Your task to perform on an android device: Do I have any events this weekend? Image 0: 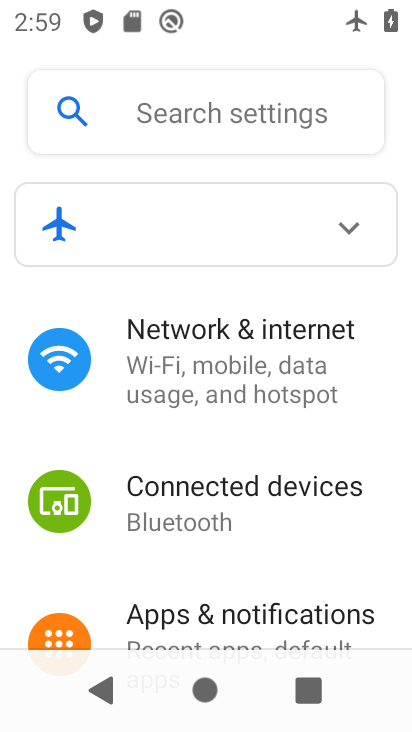
Step 0: press home button
Your task to perform on an android device: Do I have any events this weekend? Image 1: 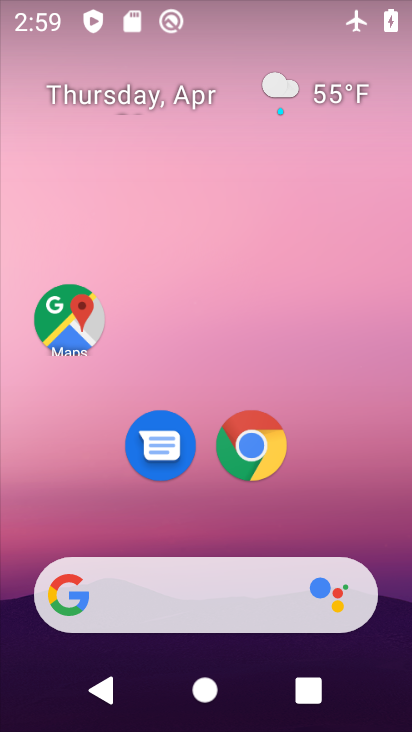
Step 1: drag from (321, 514) to (253, 5)
Your task to perform on an android device: Do I have any events this weekend? Image 2: 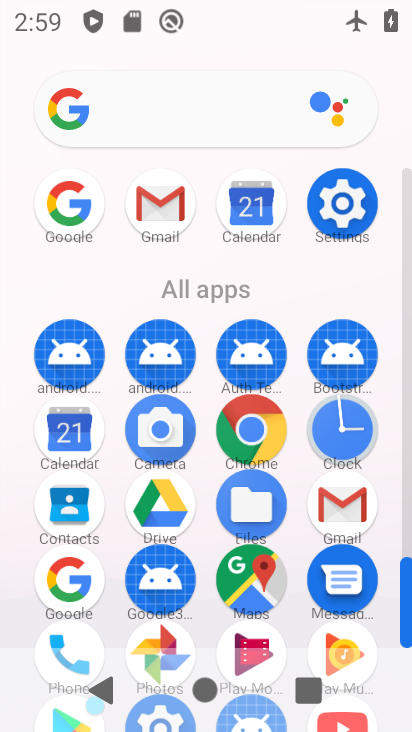
Step 2: click (76, 436)
Your task to perform on an android device: Do I have any events this weekend? Image 3: 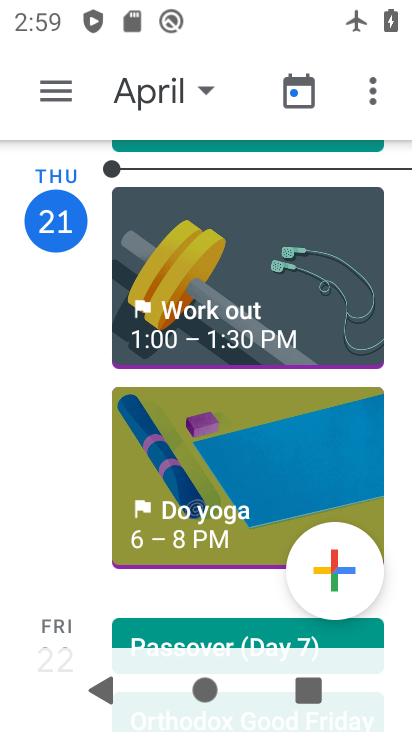
Step 3: click (210, 88)
Your task to perform on an android device: Do I have any events this weekend? Image 4: 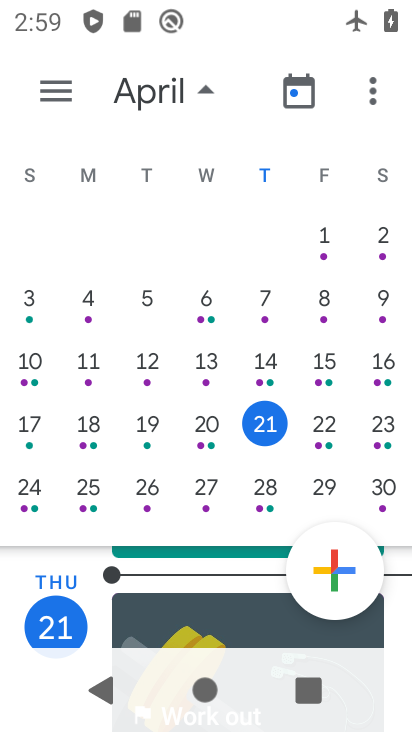
Step 4: click (382, 435)
Your task to perform on an android device: Do I have any events this weekend? Image 5: 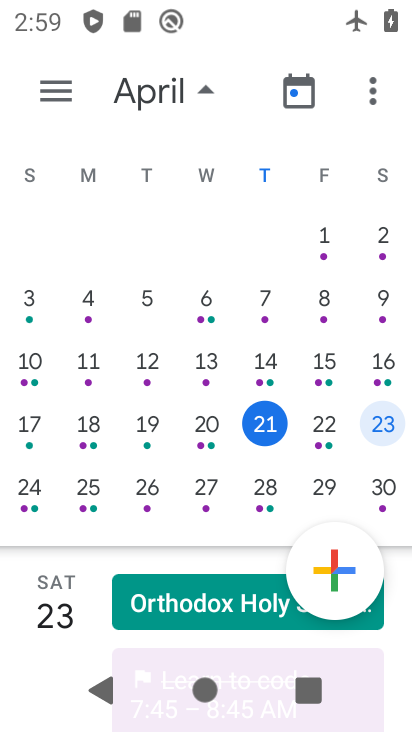
Step 5: click (59, 88)
Your task to perform on an android device: Do I have any events this weekend? Image 6: 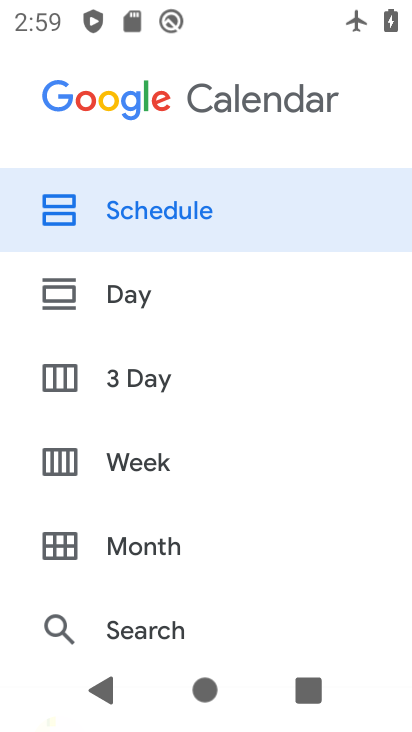
Step 6: click (131, 452)
Your task to perform on an android device: Do I have any events this weekend? Image 7: 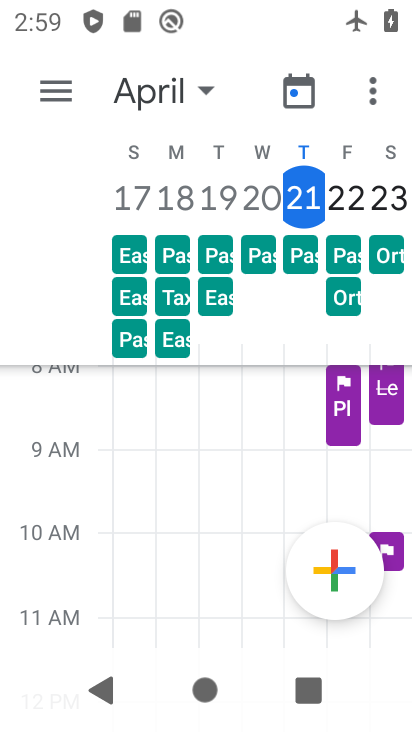
Step 7: task complete